Your task to perform on an android device: Open Google Image 0: 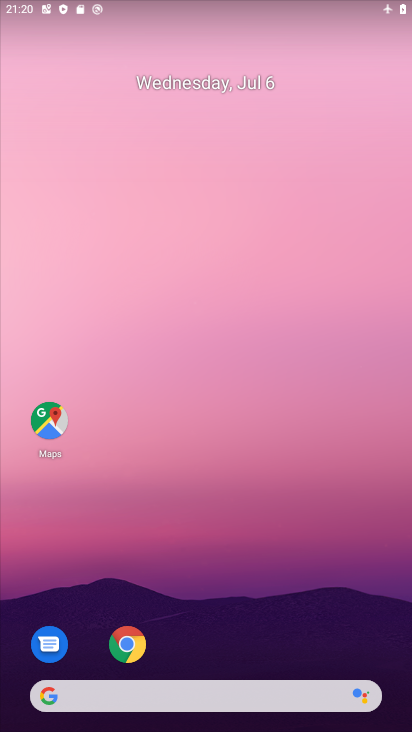
Step 0: drag from (172, 646) to (185, 218)
Your task to perform on an android device: Open Google Image 1: 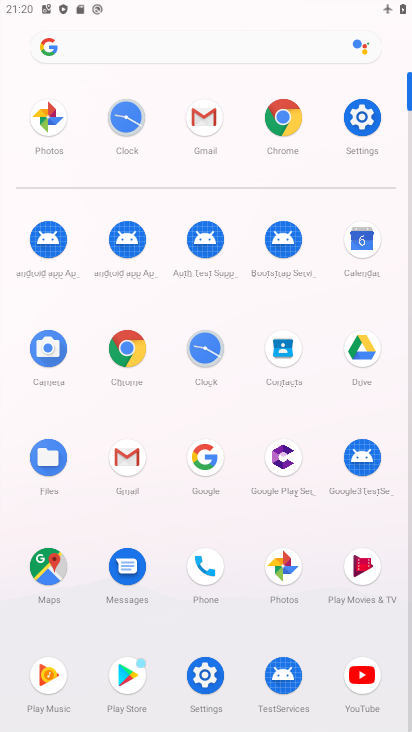
Step 1: click (201, 475)
Your task to perform on an android device: Open Google Image 2: 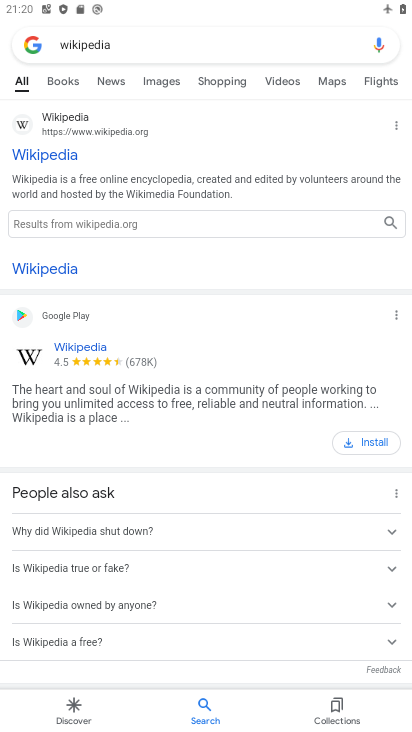
Step 2: task complete